Your task to perform on an android device: Open eBay Image 0: 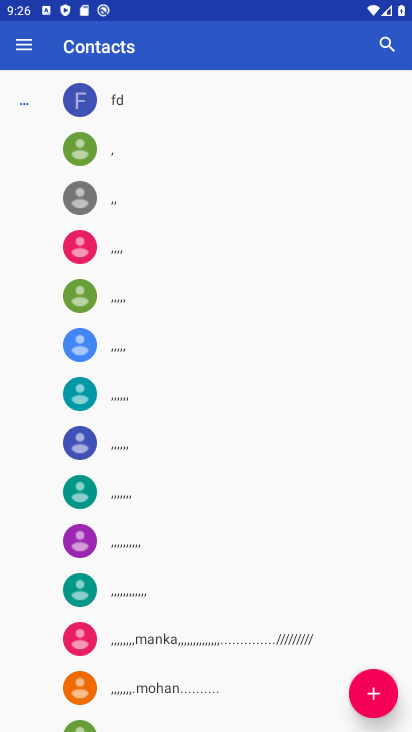
Step 0: press home button
Your task to perform on an android device: Open eBay Image 1: 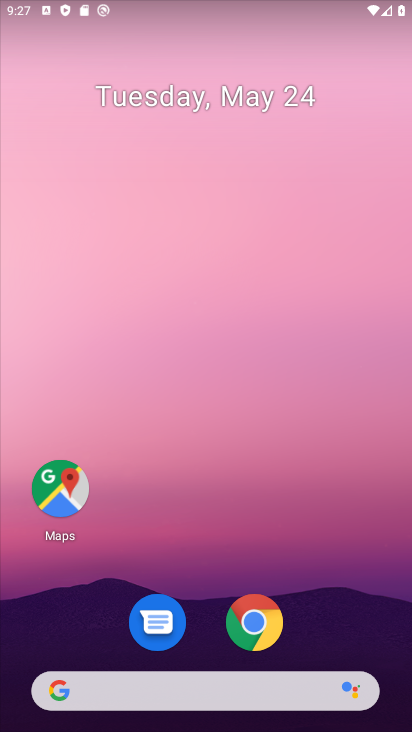
Step 1: drag from (300, 723) to (399, 259)
Your task to perform on an android device: Open eBay Image 2: 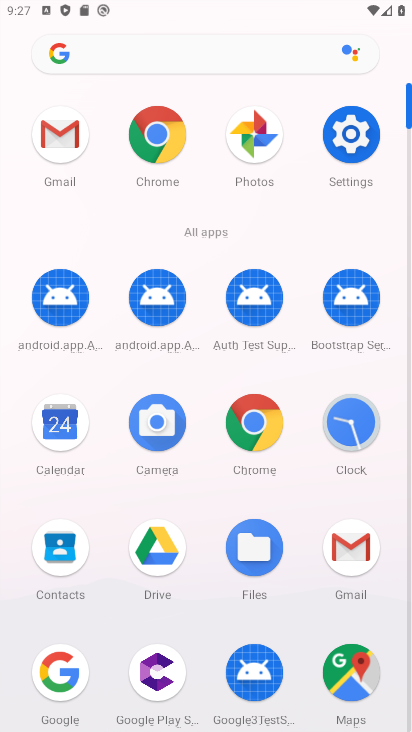
Step 2: click (178, 142)
Your task to perform on an android device: Open eBay Image 3: 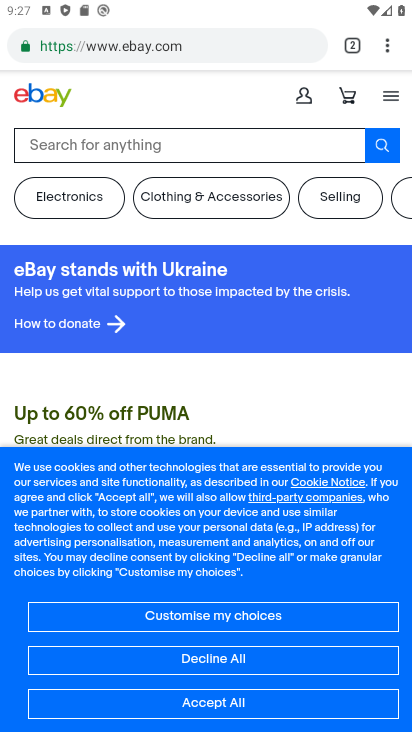
Step 3: click (131, 38)
Your task to perform on an android device: Open eBay Image 4: 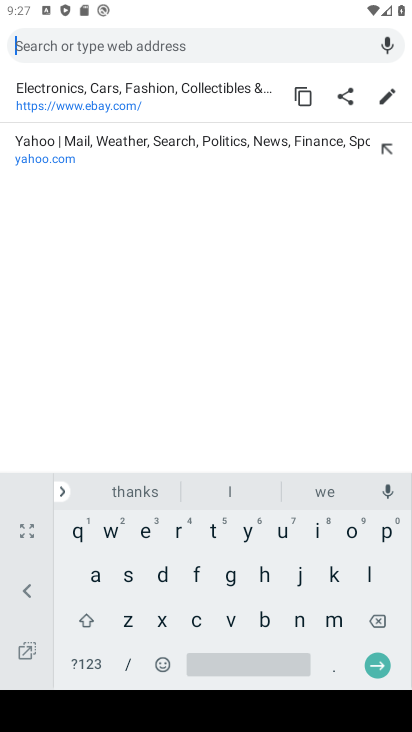
Step 4: click (154, 107)
Your task to perform on an android device: Open eBay Image 5: 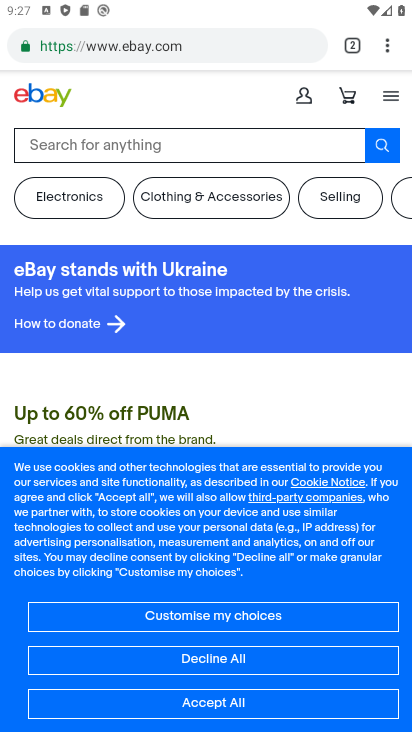
Step 5: task complete